Your task to perform on an android device: turn pop-ups on in chrome Image 0: 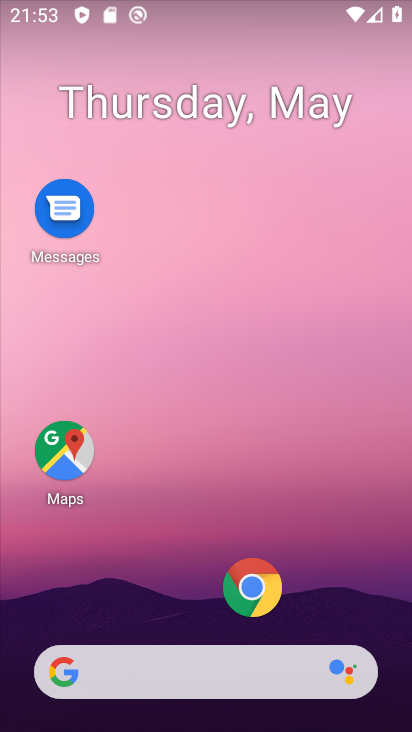
Step 0: click (255, 594)
Your task to perform on an android device: turn pop-ups on in chrome Image 1: 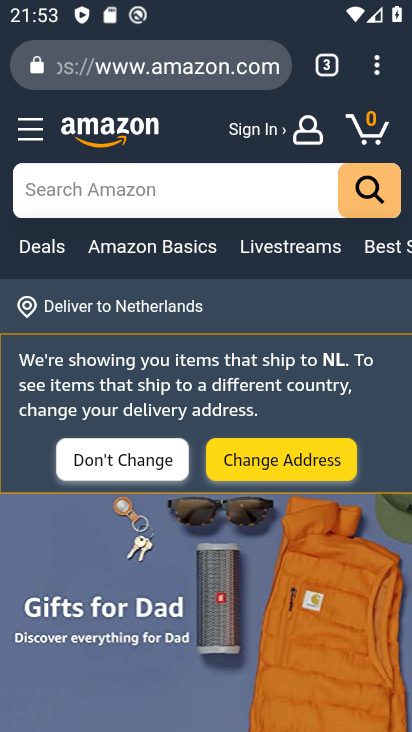
Step 1: drag from (380, 65) to (146, 646)
Your task to perform on an android device: turn pop-ups on in chrome Image 2: 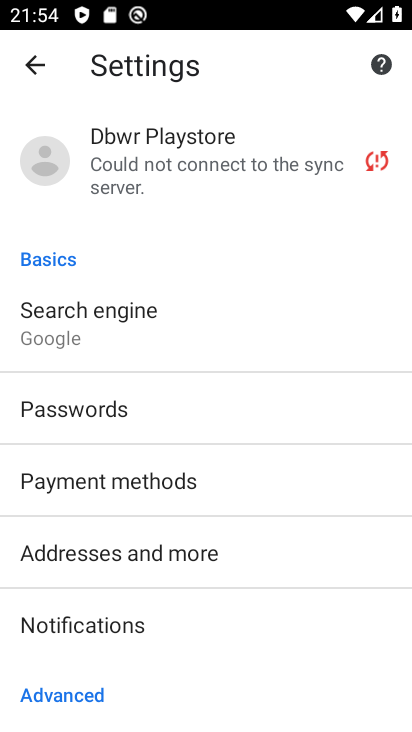
Step 2: drag from (146, 606) to (104, 171)
Your task to perform on an android device: turn pop-ups on in chrome Image 3: 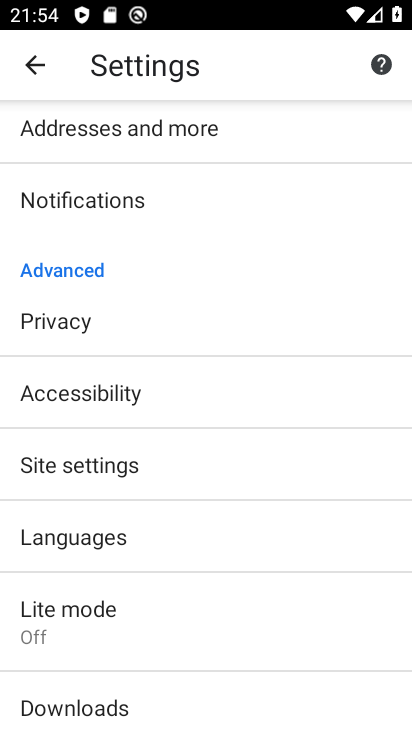
Step 3: click (87, 473)
Your task to perform on an android device: turn pop-ups on in chrome Image 4: 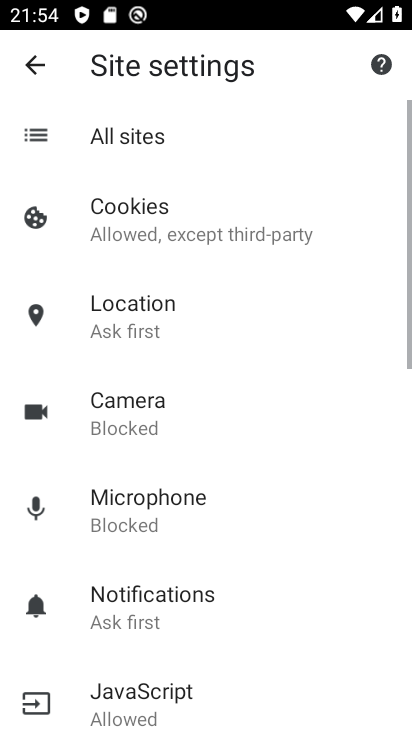
Step 4: drag from (146, 624) to (106, 213)
Your task to perform on an android device: turn pop-ups on in chrome Image 5: 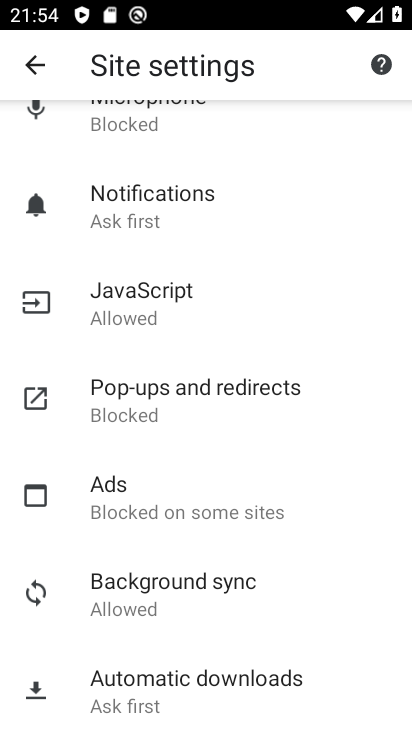
Step 5: click (113, 378)
Your task to perform on an android device: turn pop-ups on in chrome Image 6: 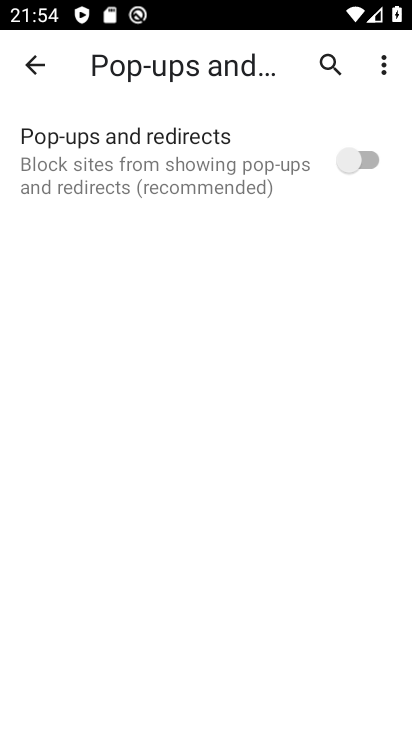
Step 6: click (325, 165)
Your task to perform on an android device: turn pop-ups on in chrome Image 7: 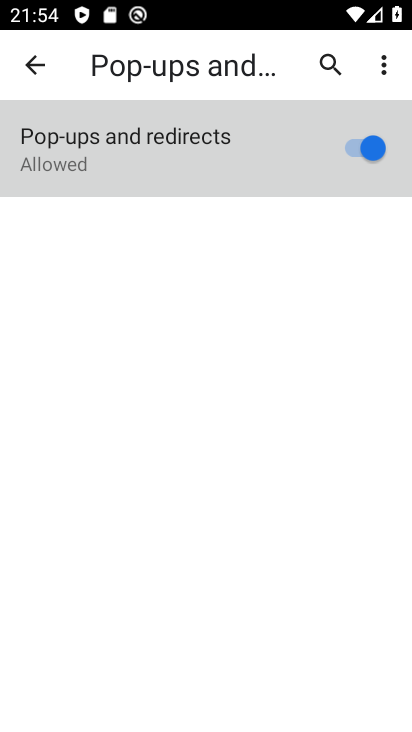
Step 7: task complete